Your task to perform on an android device: Open Chrome and go to settings Image 0: 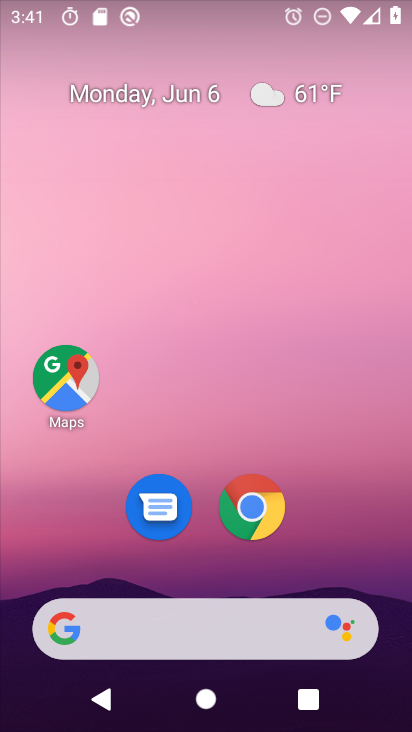
Step 0: click (238, 525)
Your task to perform on an android device: Open Chrome and go to settings Image 1: 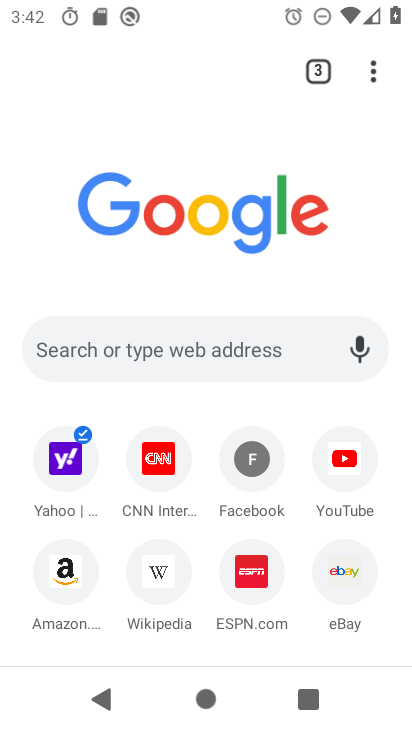
Step 1: click (372, 84)
Your task to perform on an android device: Open Chrome and go to settings Image 2: 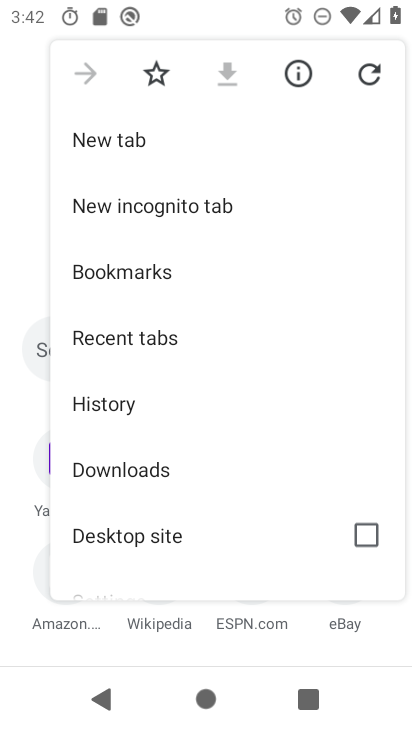
Step 2: drag from (168, 527) to (217, 267)
Your task to perform on an android device: Open Chrome and go to settings Image 3: 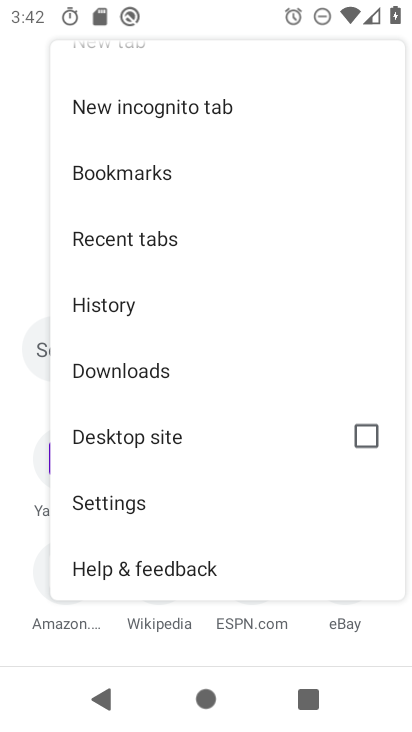
Step 3: click (157, 500)
Your task to perform on an android device: Open Chrome and go to settings Image 4: 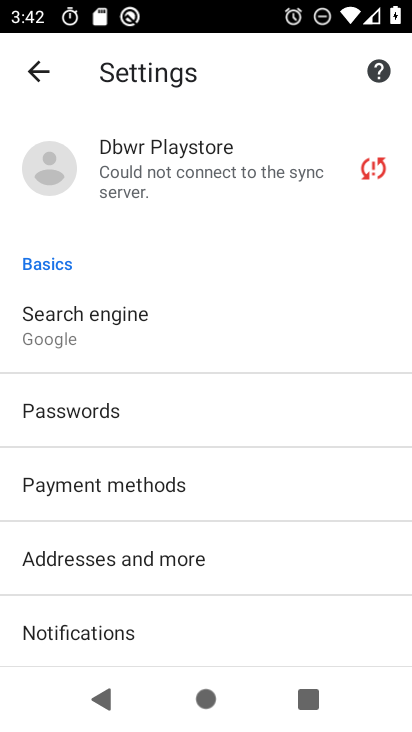
Step 4: task complete